Your task to perform on an android device: Go to ESPN.com Image 0: 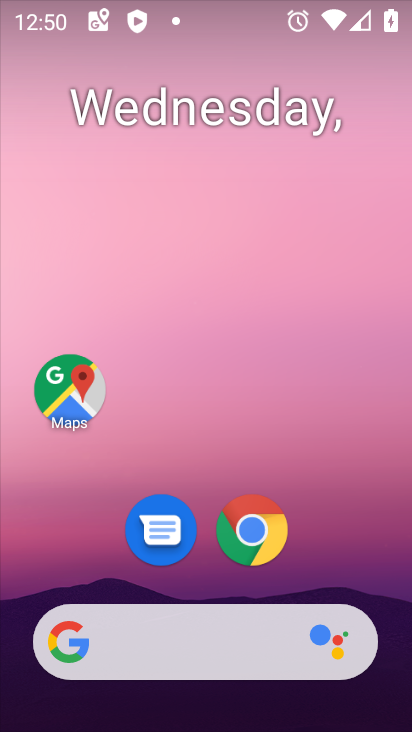
Step 0: click (253, 525)
Your task to perform on an android device: Go to ESPN.com Image 1: 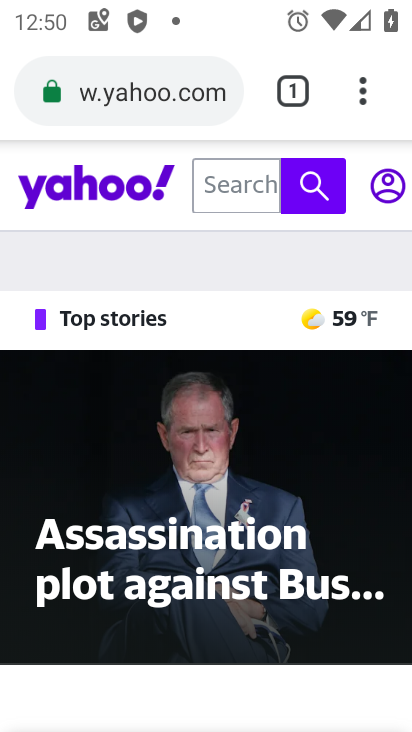
Step 1: click (137, 106)
Your task to perform on an android device: Go to ESPN.com Image 2: 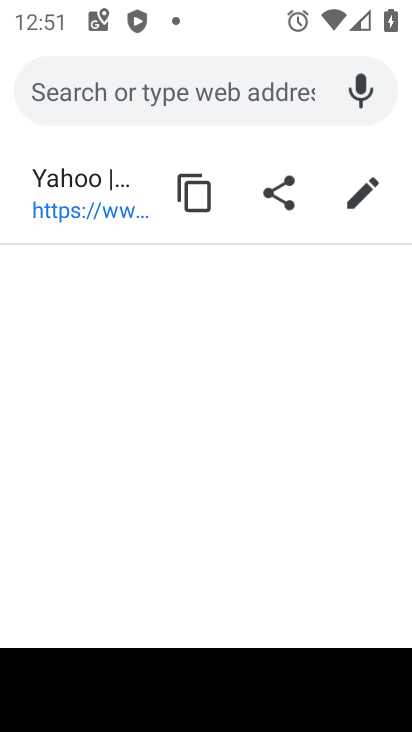
Step 2: type "ESPN.com"
Your task to perform on an android device: Go to ESPN.com Image 3: 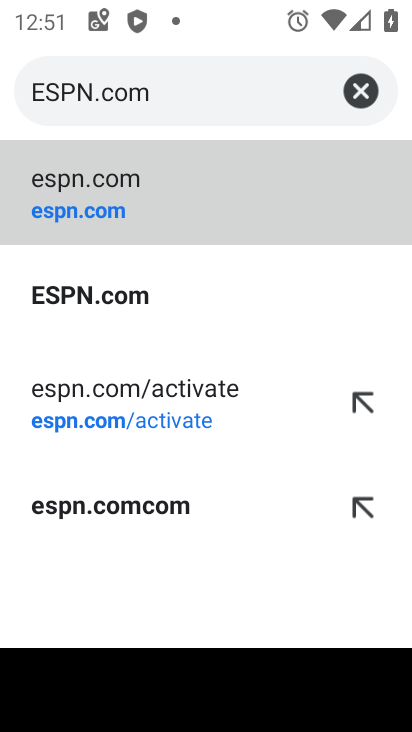
Step 3: click (188, 210)
Your task to perform on an android device: Go to ESPN.com Image 4: 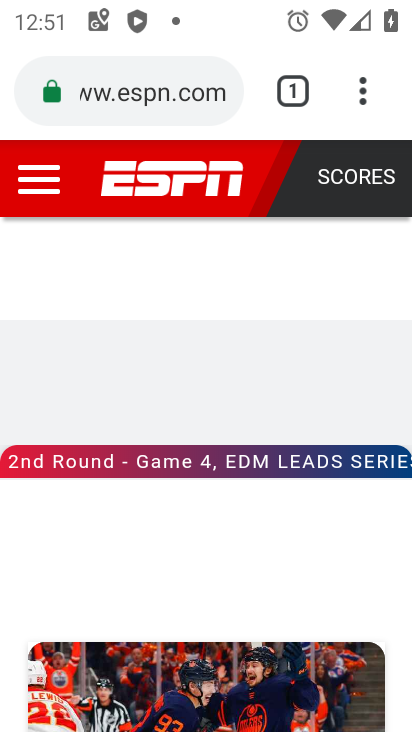
Step 4: task complete